Your task to perform on an android device: check the backup settings in the google photos Image 0: 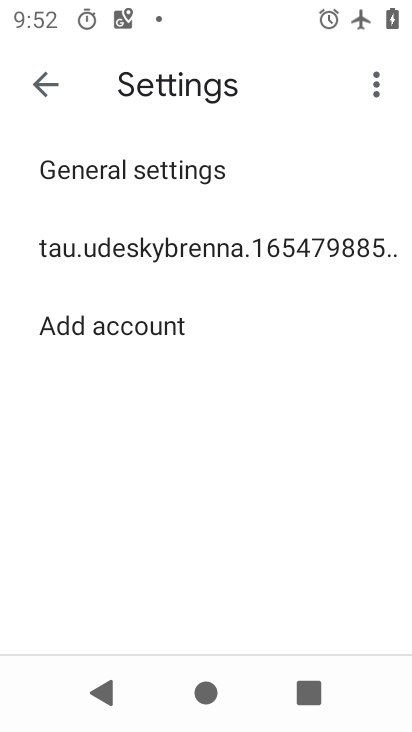
Step 0: press home button
Your task to perform on an android device: check the backup settings in the google photos Image 1: 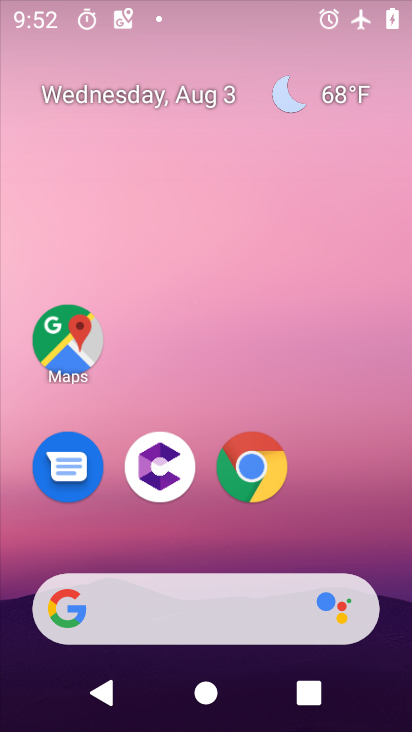
Step 1: drag from (343, 489) to (407, 71)
Your task to perform on an android device: check the backup settings in the google photos Image 2: 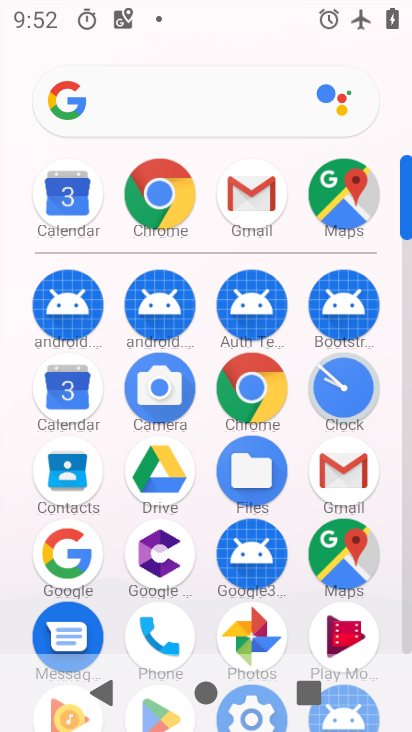
Step 2: drag from (194, 595) to (200, 318)
Your task to perform on an android device: check the backup settings in the google photos Image 3: 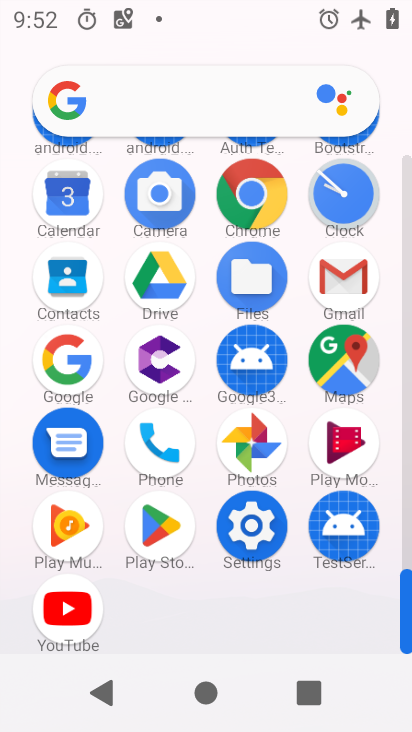
Step 3: click (245, 439)
Your task to perform on an android device: check the backup settings in the google photos Image 4: 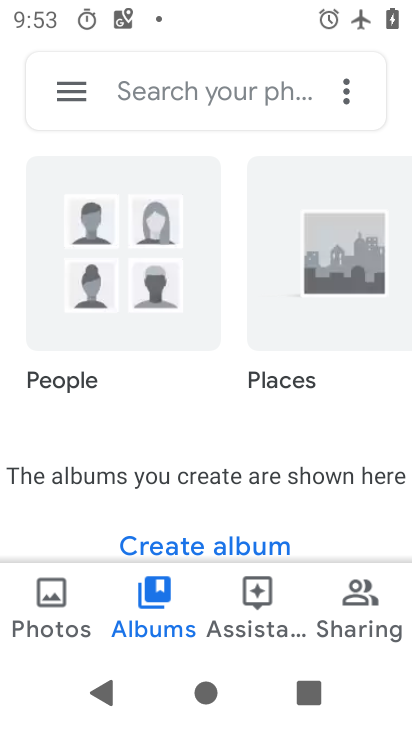
Step 4: click (69, 93)
Your task to perform on an android device: check the backup settings in the google photos Image 5: 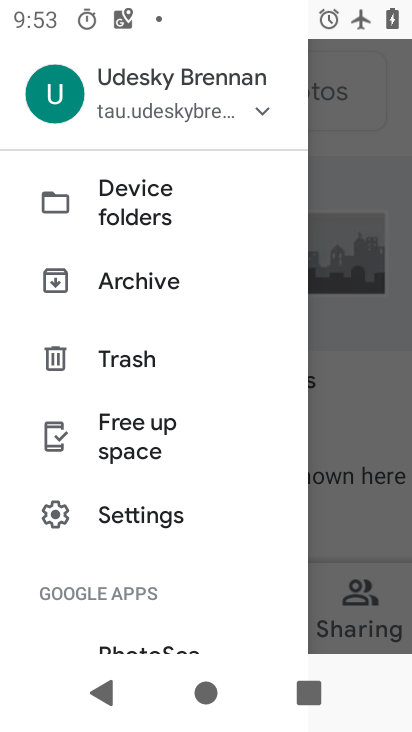
Step 5: drag from (175, 554) to (267, 96)
Your task to perform on an android device: check the backup settings in the google photos Image 6: 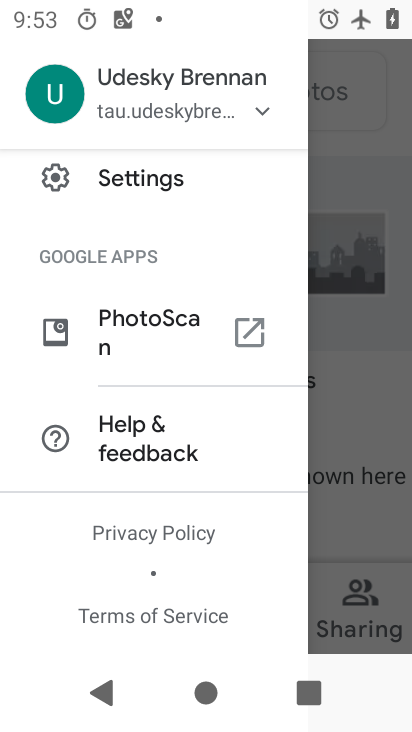
Step 6: click (161, 178)
Your task to perform on an android device: check the backup settings in the google photos Image 7: 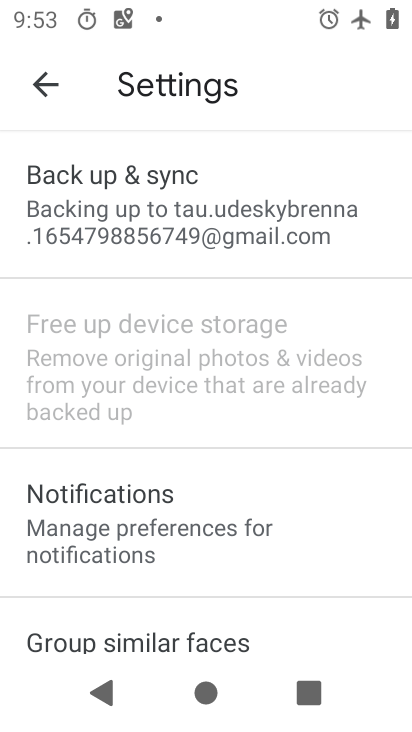
Step 7: click (153, 194)
Your task to perform on an android device: check the backup settings in the google photos Image 8: 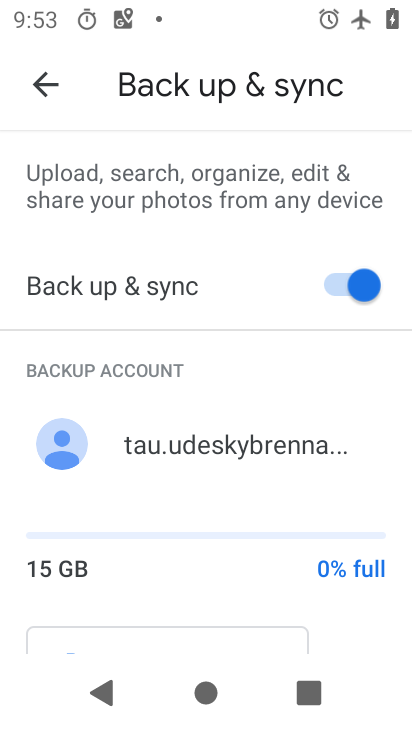
Step 8: task complete